Your task to perform on an android device: turn off sleep mode Image 0: 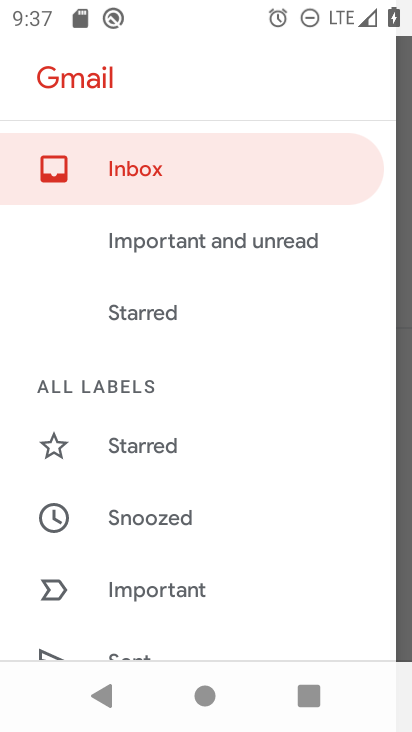
Step 0: press home button
Your task to perform on an android device: turn off sleep mode Image 1: 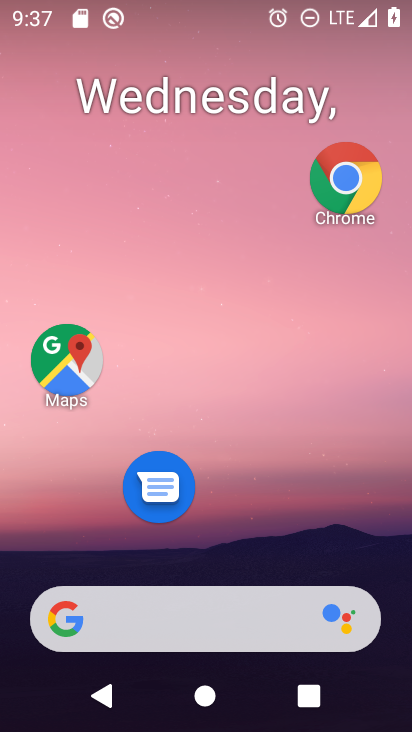
Step 1: drag from (225, 602) to (284, 168)
Your task to perform on an android device: turn off sleep mode Image 2: 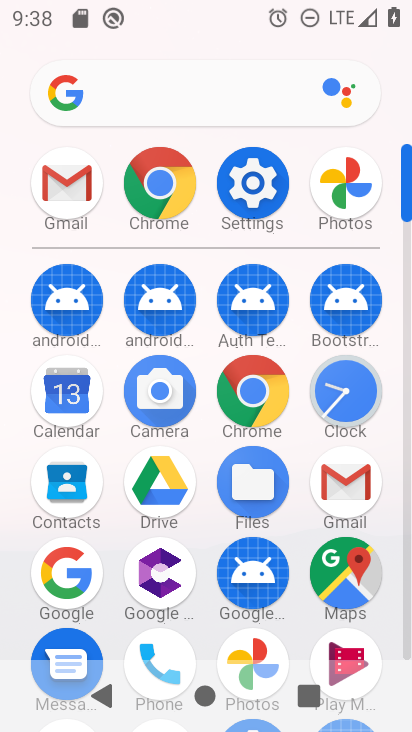
Step 2: click (252, 223)
Your task to perform on an android device: turn off sleep mode Image 3: 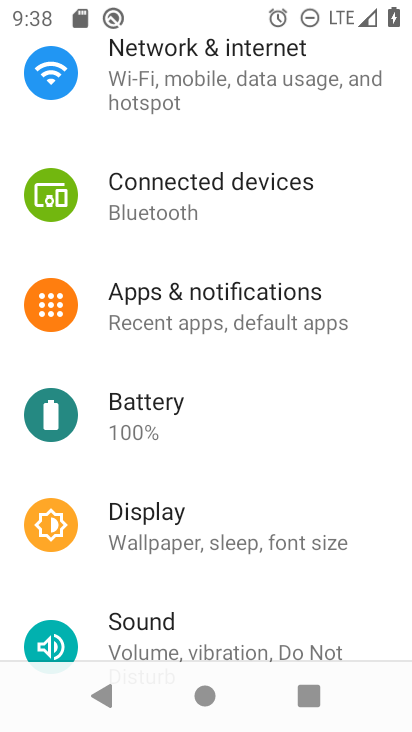
Step 3: click (174, 528)
Your task to perform on an android device: turn off sleep mode Image 4: 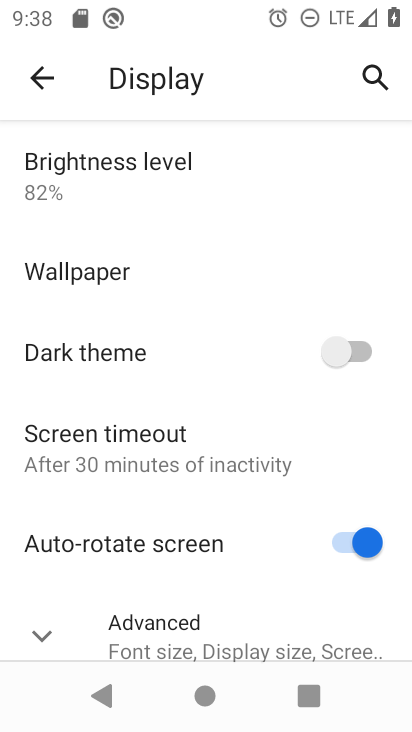
Step 4: click (121, 634)
Your task to perform on an android device: turn off sleep mode Image 5: 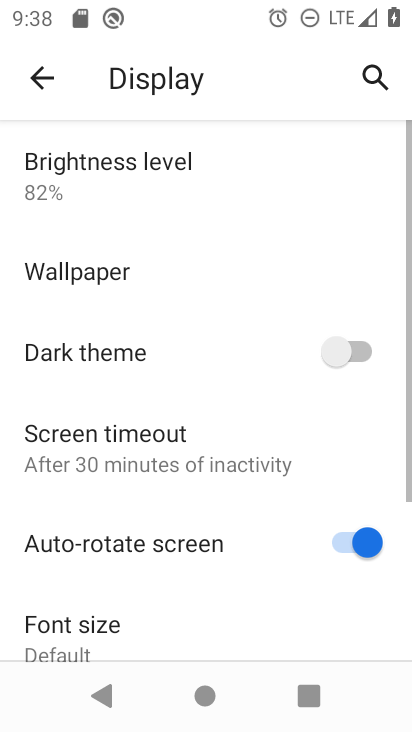
Step 5: task complete